Your task to perform on an android device: Open wifi settings Image 0: 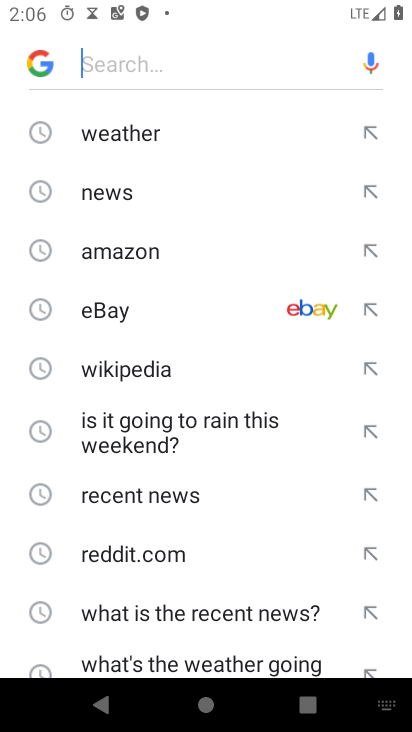
Step 0: press home button
Your task to perform on an android device: Open wifi settings Image 1: 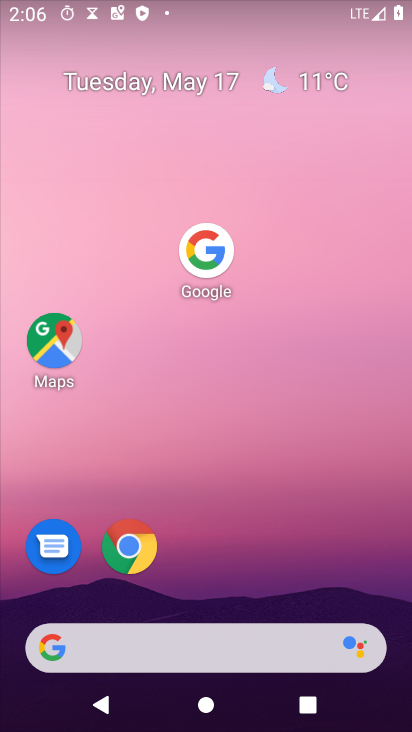
Step 1: drag from (123, 655) to (304, 158)
Your task to perform on an android device: Open wifi settings Image 2: 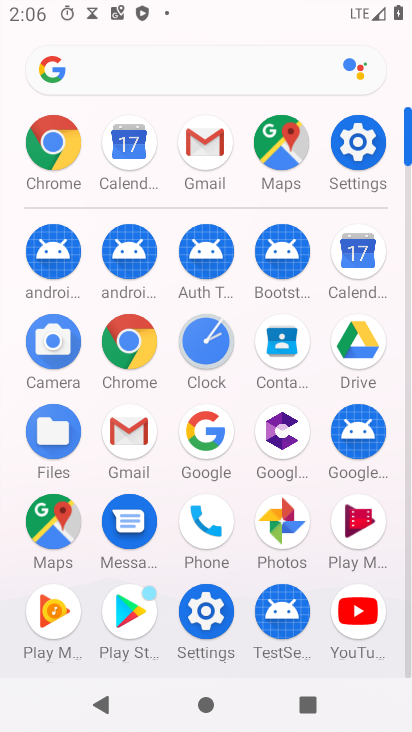
Step 2: click (364, 141)
Your task to perform on an android device: Open wifi settings Image 3: 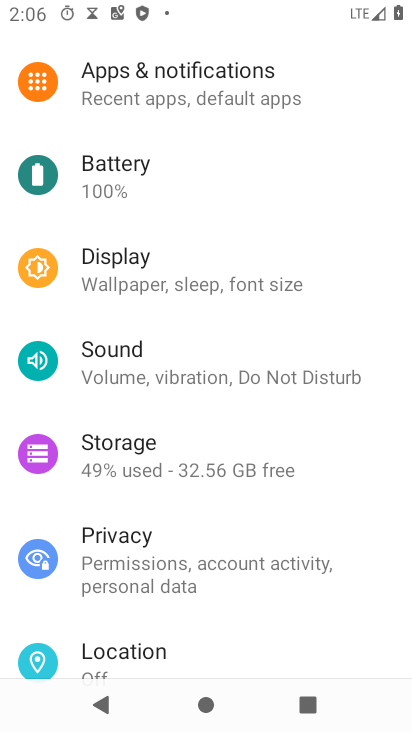
Step 3: drag from (293, 148) to (230, 549)
Your task to perform on an android device: Open wifi settings Image 4: 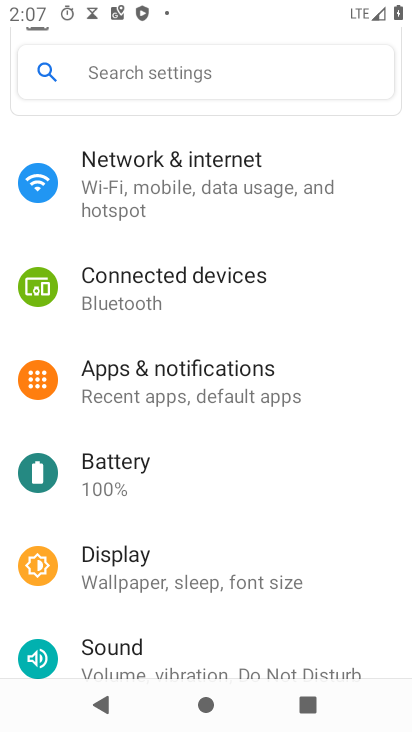
Step 4: click (194, 165)
Your task to perform on an android device: Open wifi settings Image 5: 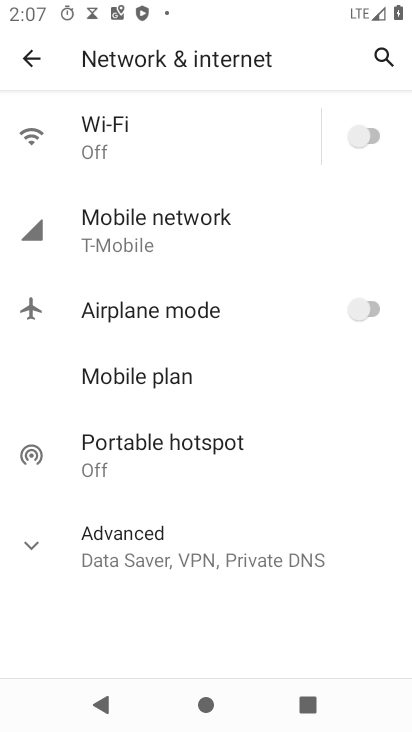
Step 5: click (115, 145)
Your task to perform on an android device: Open wifi settings Image 6: 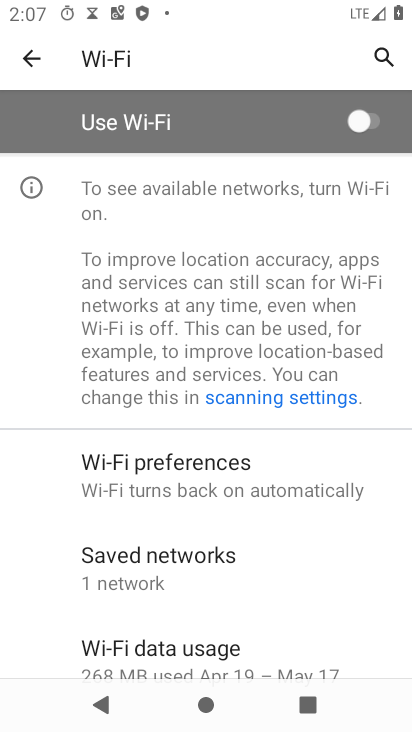
Step 6: task complete